Your task to perform on an android device: Search for seafood restaurants on Google Maps Image 0: 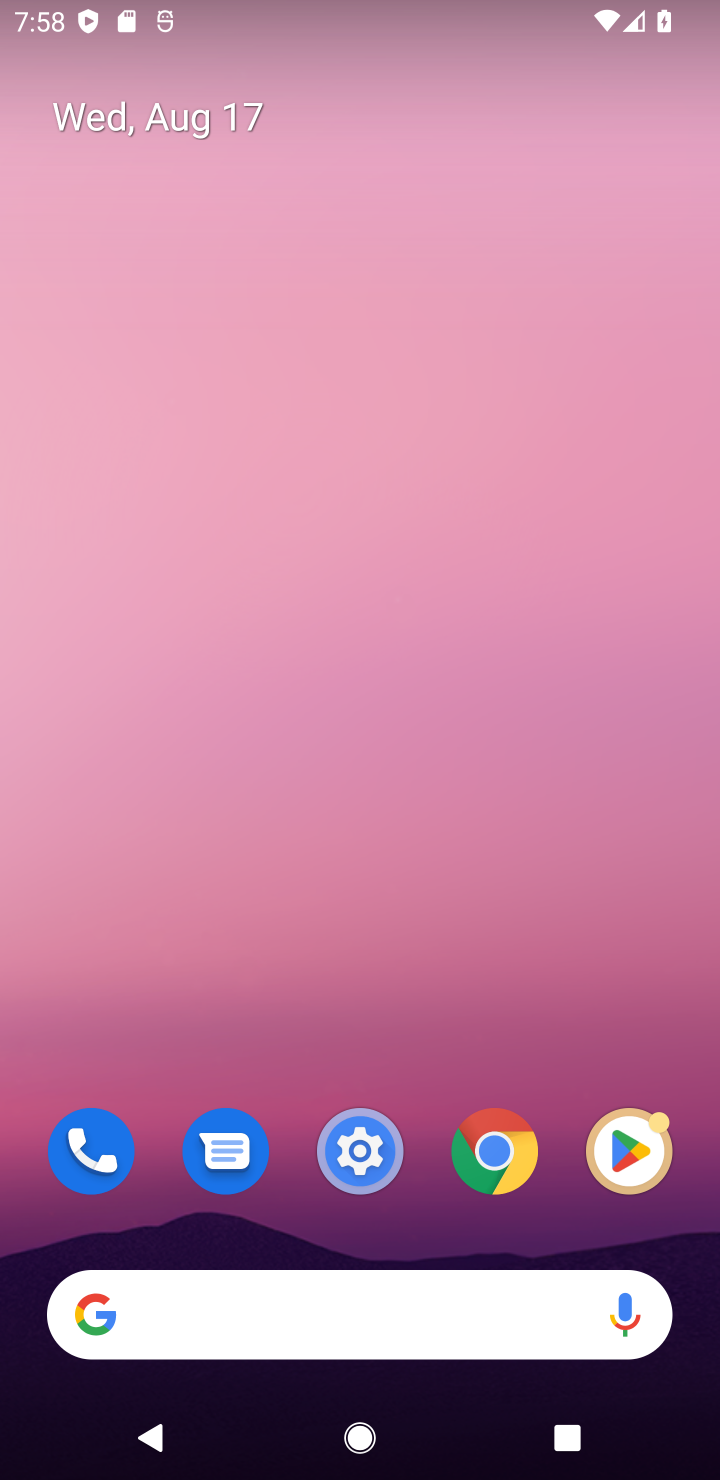
Step 0: drag from (437, 1169) to (326, 67)
Your task to perform on an android device: Search for seafood restaurants on Google Maps Image 1: 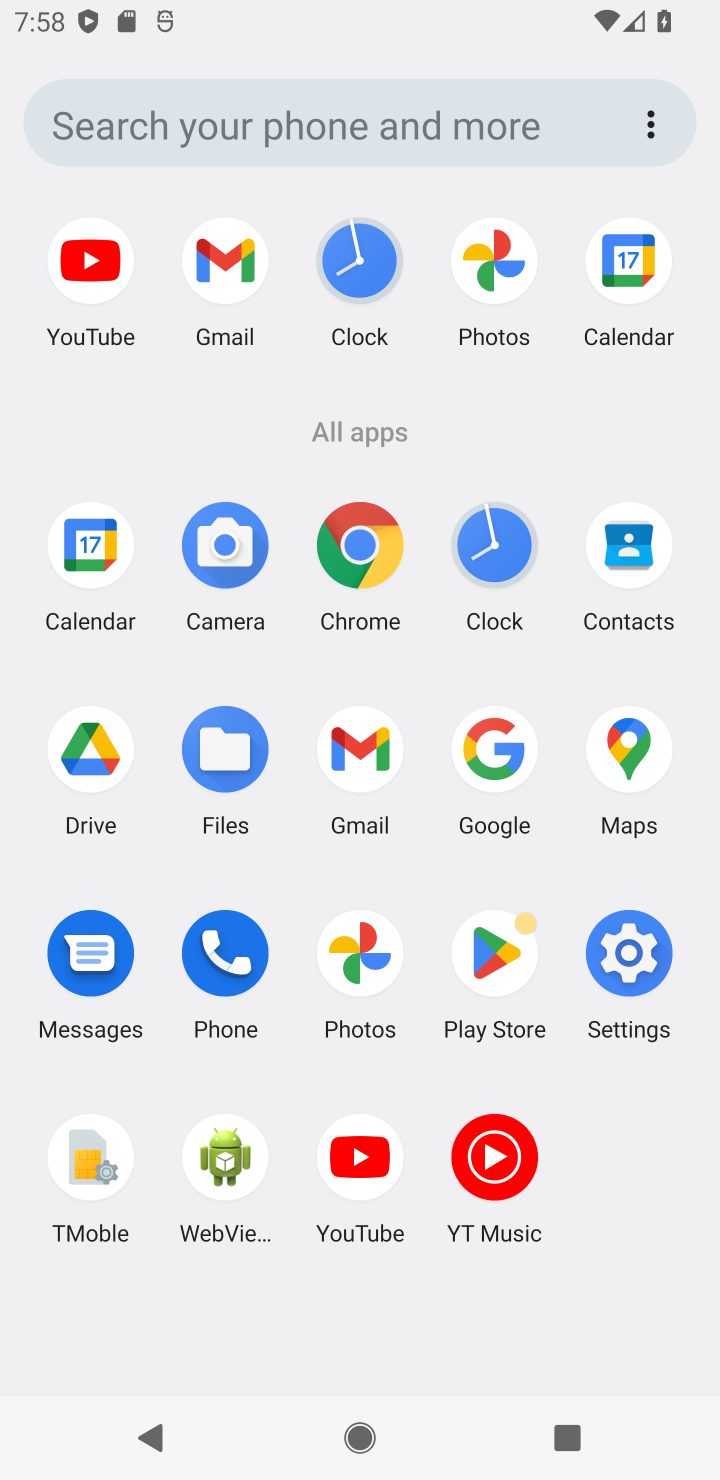
Step 1: click (625, 730)
Your task to perform on an android device: Search for seafood restaurants on Google Maps Image 2: 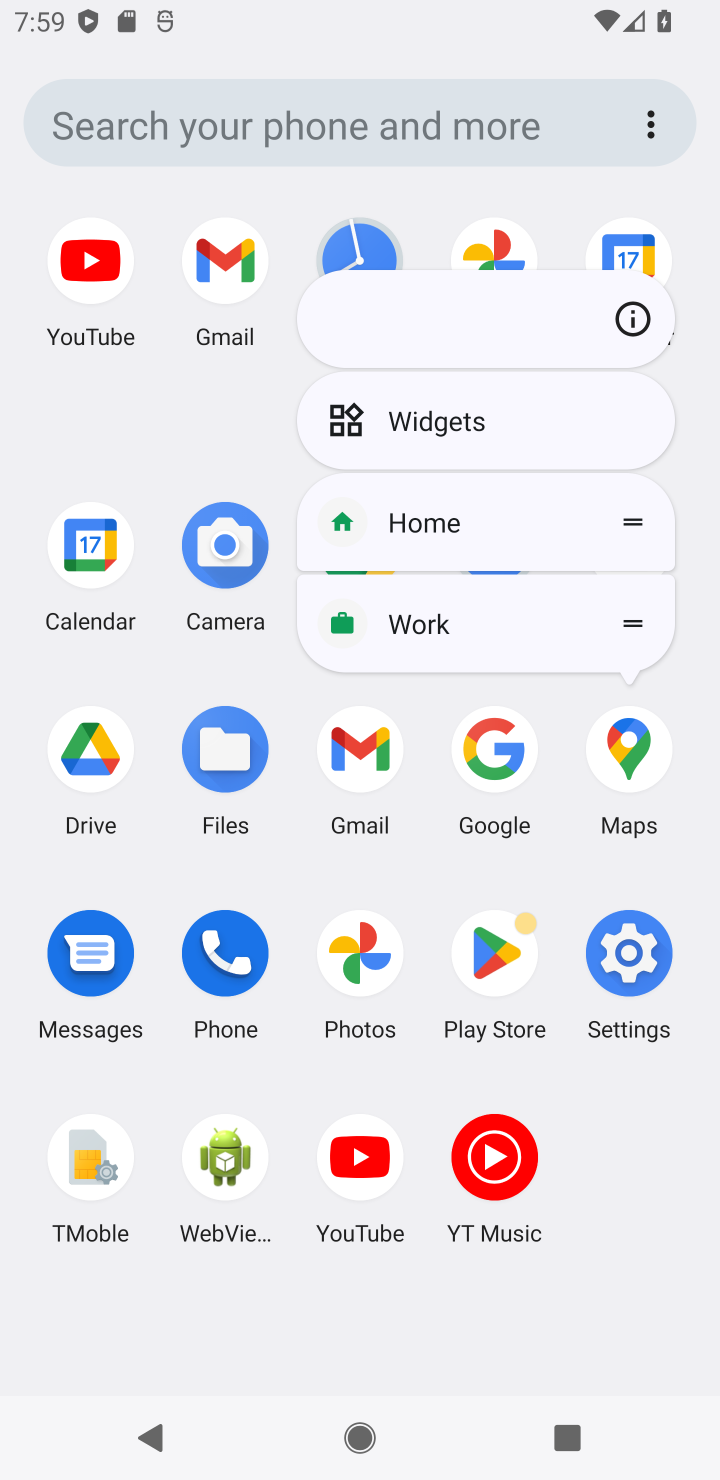
Step 2: click (627, 753)
Your task to perform on an android device: Search for seafood restaurants on Google Maps Image 3: 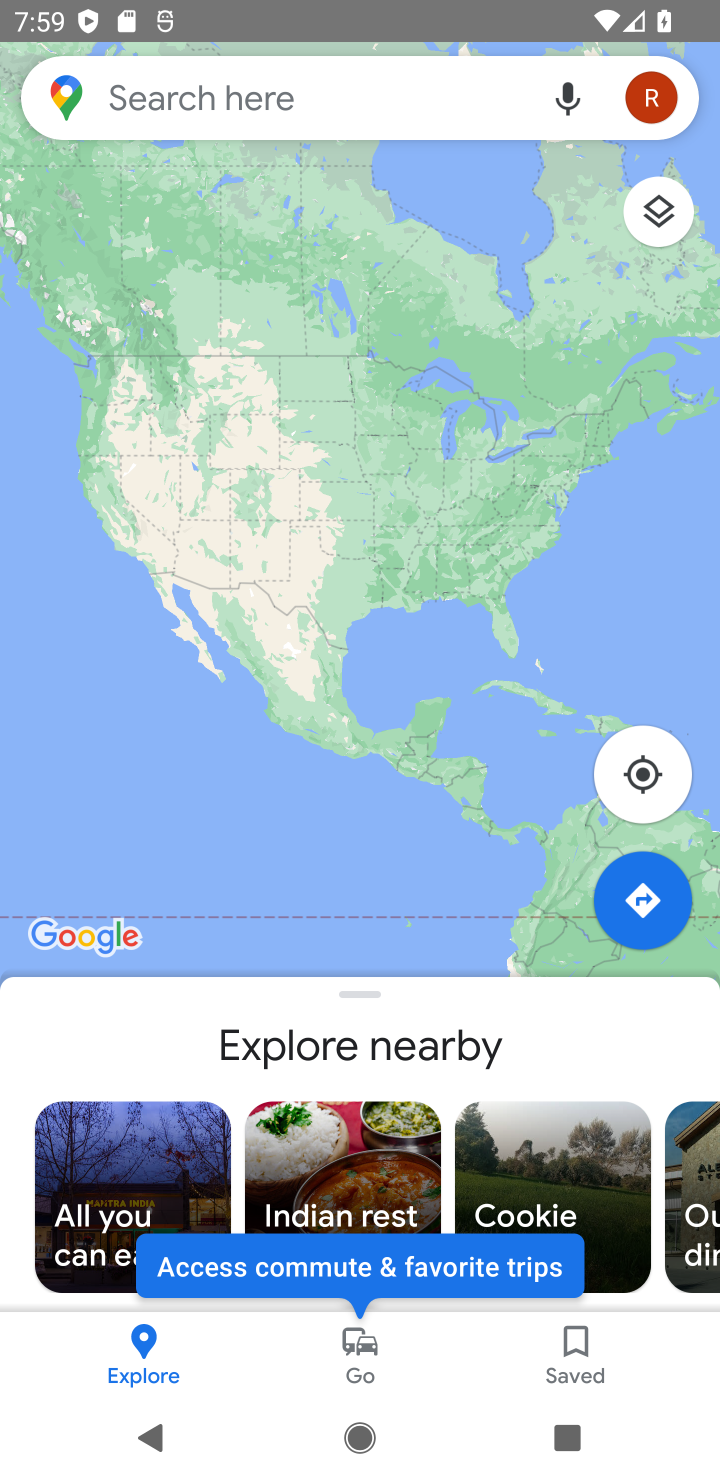
Step 3: click (236, 102)
Your task to perform on an android device: Search for seafood restaurants on Google Maps Image 4: 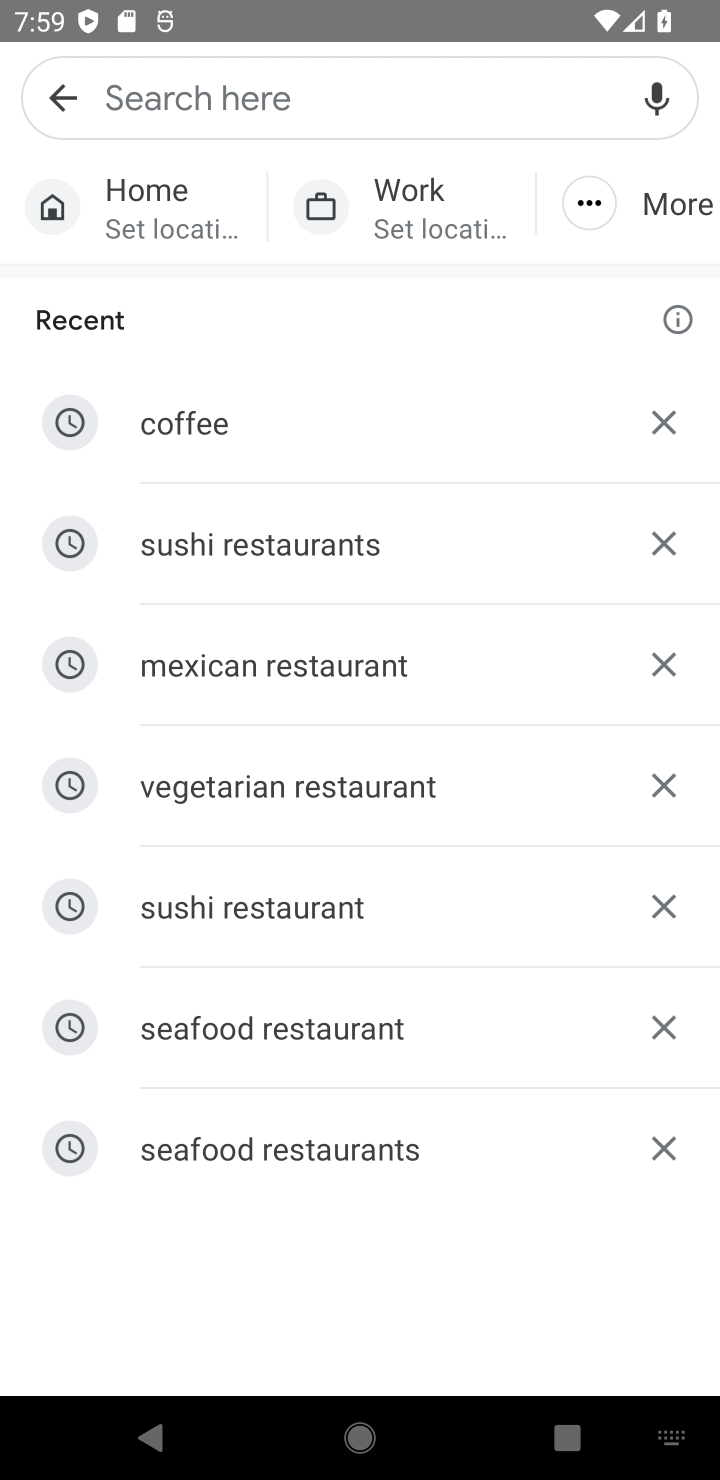
Step 4: type " seafood restaurants"
Your task to perform on an android device: Search for seafood restaurants on Google Maps Image 5: 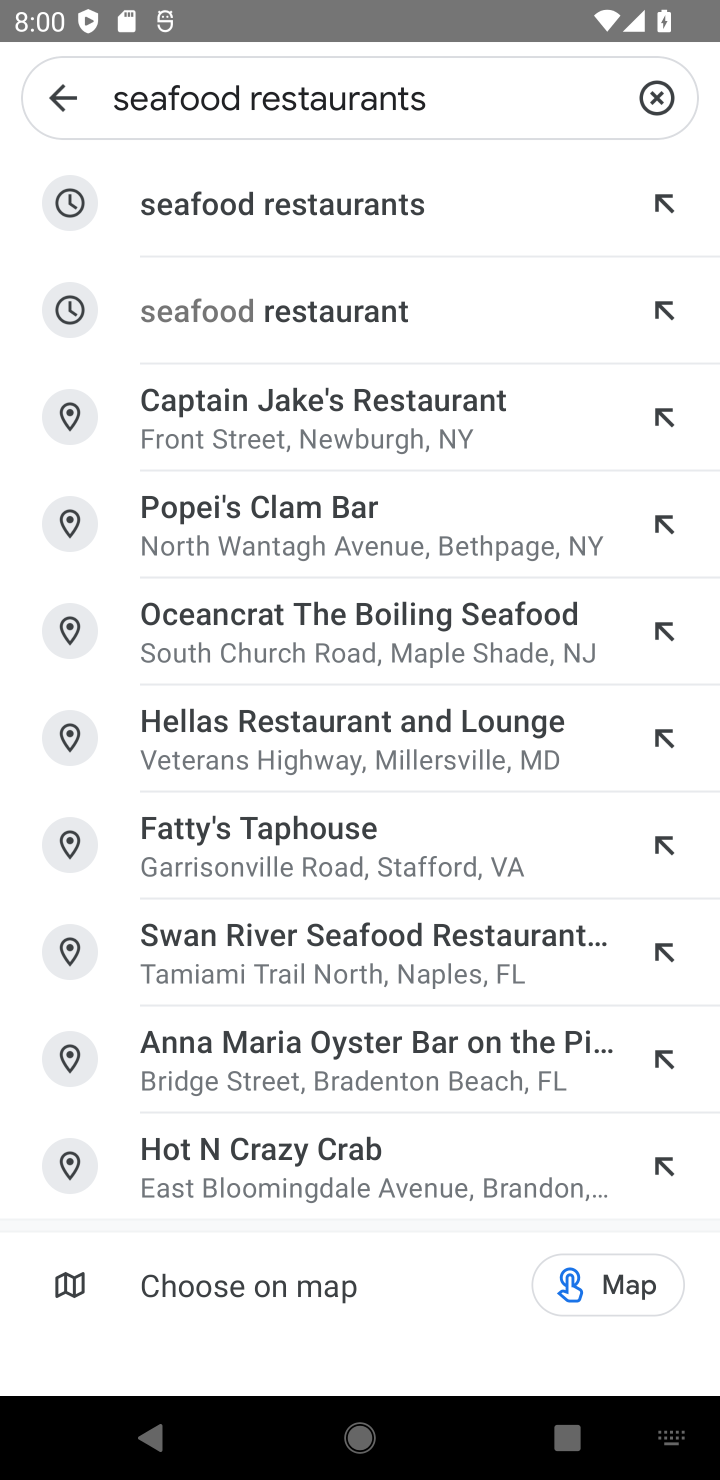
Step 5: click (203, 221)
Your task to perform on an android device: Search for seafood restaurants on Google Maps Image 6: 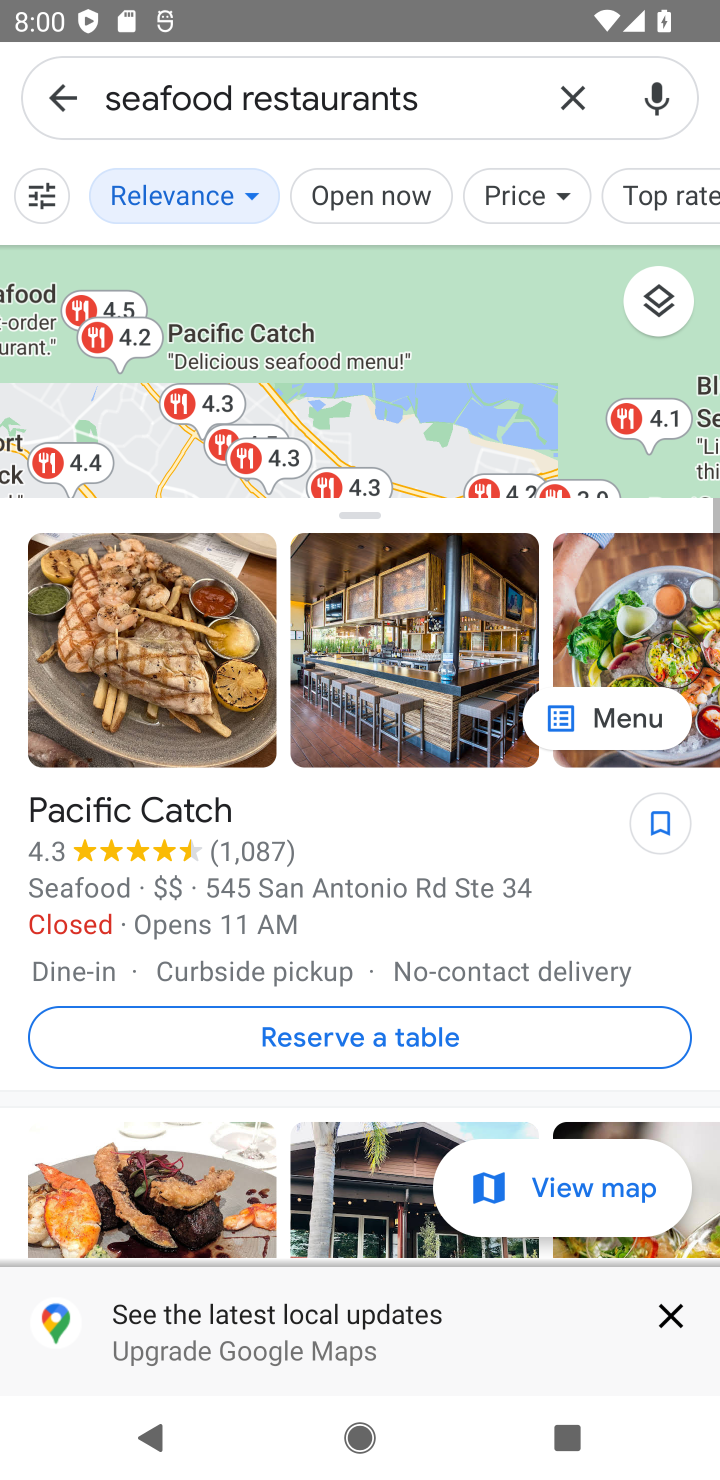
Step 6: task complete